Your task to perform on an android device: turn pop-ups off in chrome Image 0: 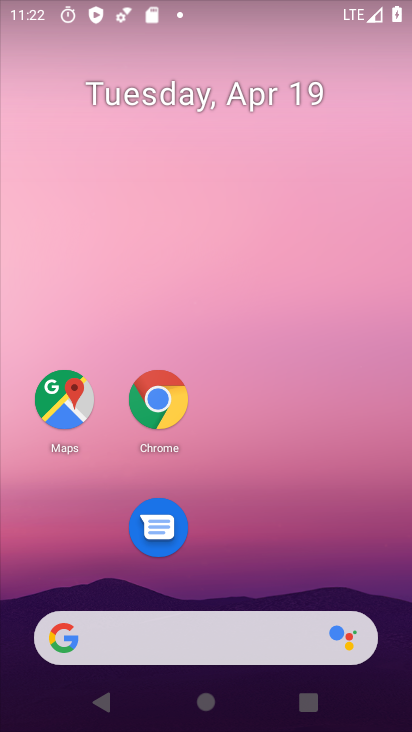
Step 0: drag from (241, 672) to (227, 136)
Your task to perform on an android device: turn pop-ups off in chrome Image 1: 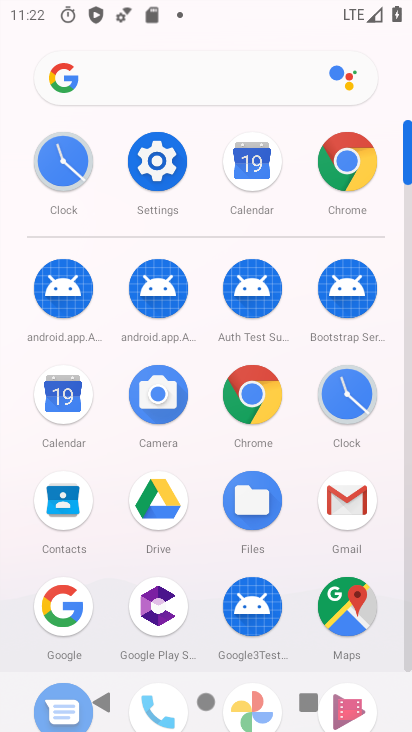
Step 1: click (247, 394)
Your task to perform on an android device: turn pop-ups off in chrome Image 2: 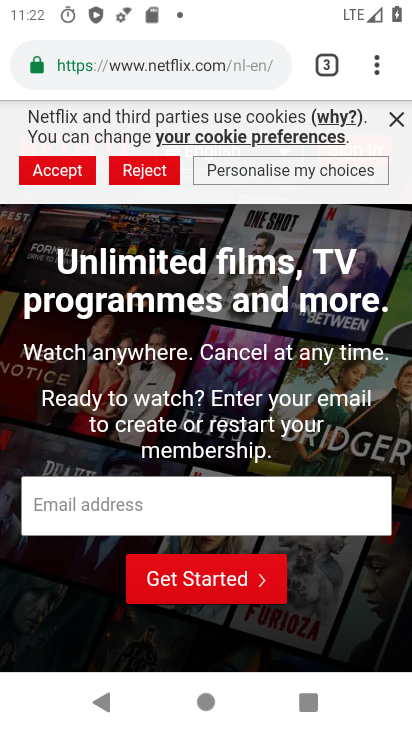
Step 2: click (400, 119)
Your task to perform on an android device: turn pop-ups off in chrome Image 3: 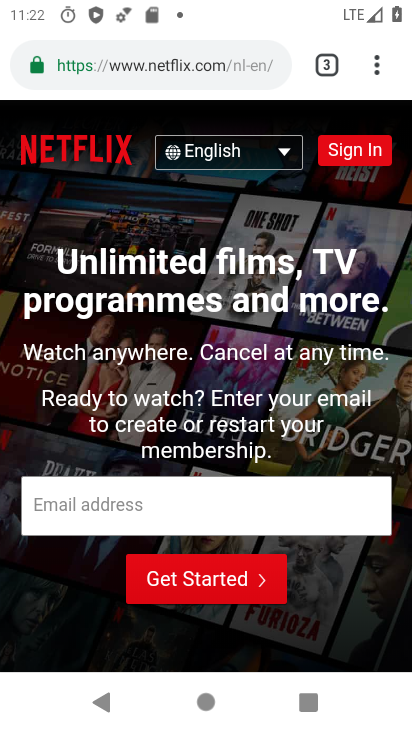
Step 3: click (372, 65)
Your task to perform on an android device: turn pop-ups off in chrome Image 4: 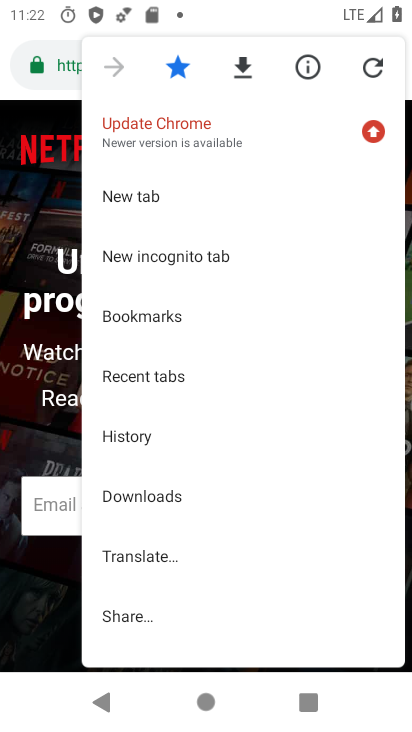
Step 4: drag from (190, 599) to (202, 273)
Your task to perform on an android device: turn pop-ups off in chrome Image 5: 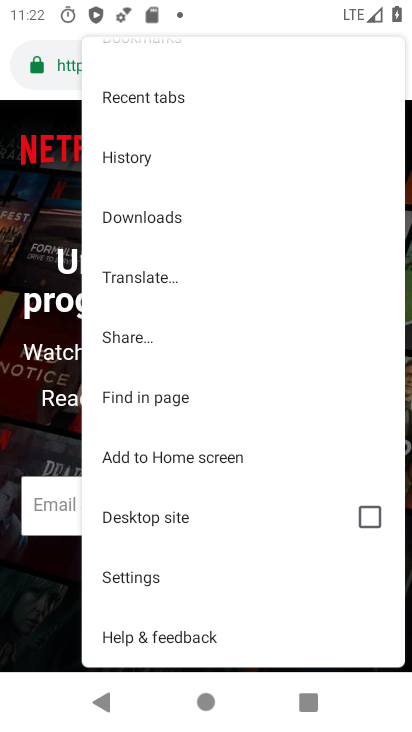
Step 5: click (145, 570)
Your task to perform on an android device: turn pop-ups off in chrome Image 6: 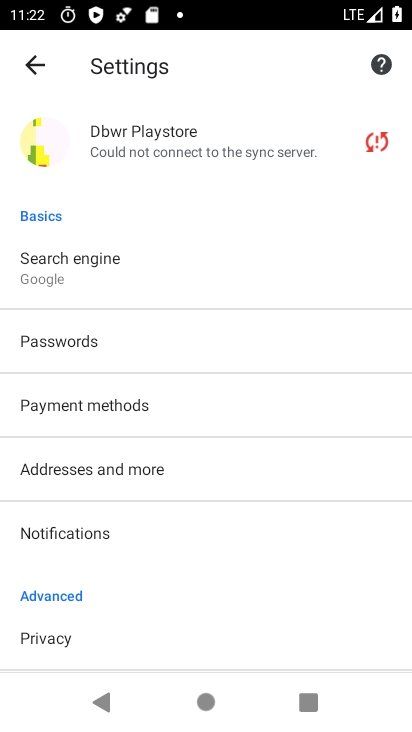
Step 6: drag from (158, 560) to (154, 404)
Your task to perform on an android device: turn pop-ups off in chrome Image 7: 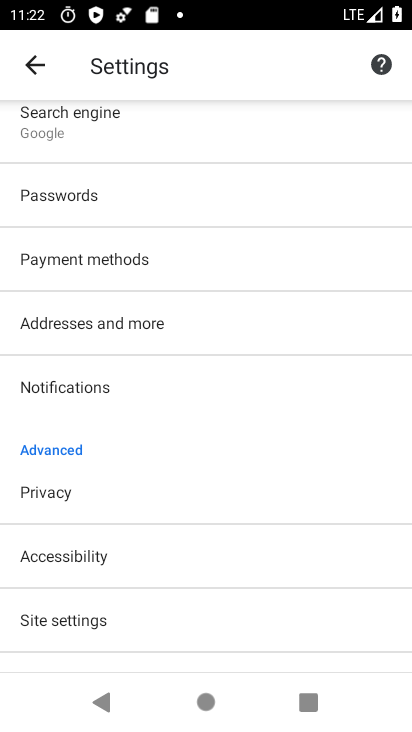
Step 7: click (62, 618)
Your task to perform on an android device: turn pop-ups off in chrome Image 8: 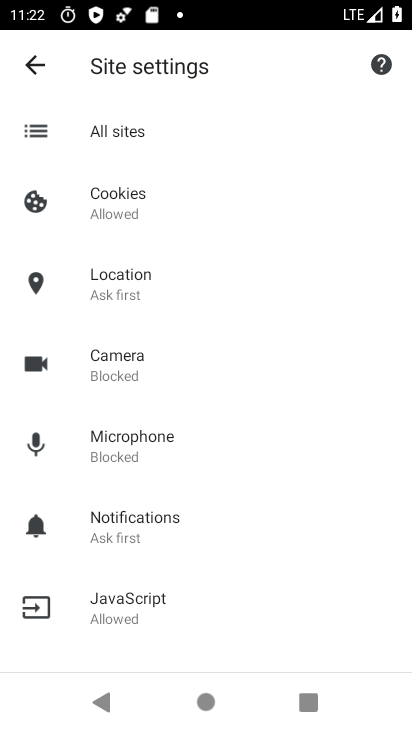
Step 8: drag from (151, 589) to (172, 499)
Your task to perform on an android device: turn pop-ups off in chrome Image 9: 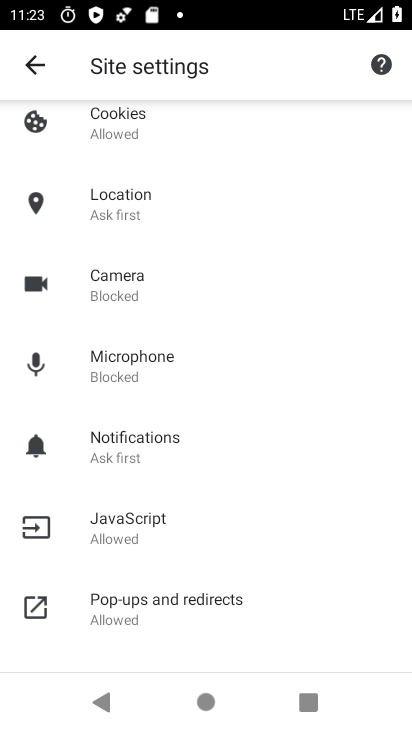
Step 9: click (120, 582)
Your task to perform on an android device: turn pop-ups off in chrome Image 10: 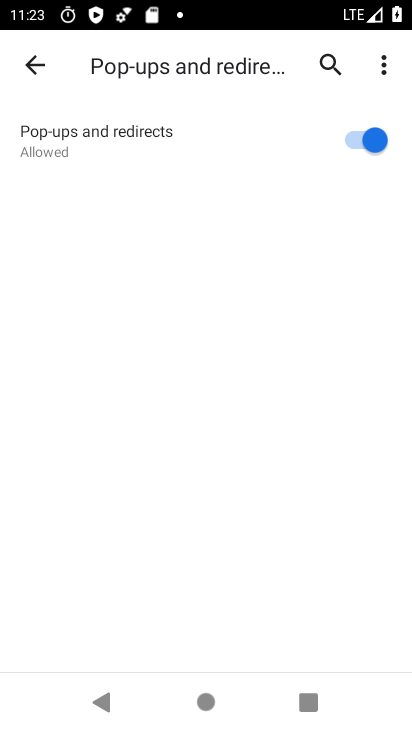
Step 10: click (266, 144)
Your task to perform on an android device: turn pop-ups off in chrome Image 11: 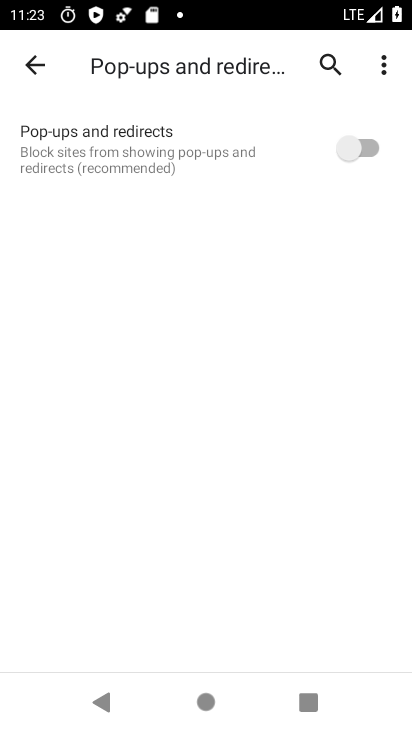
Step 11: task complete